Your task to perform on an android device: toggle wifi Image 0: 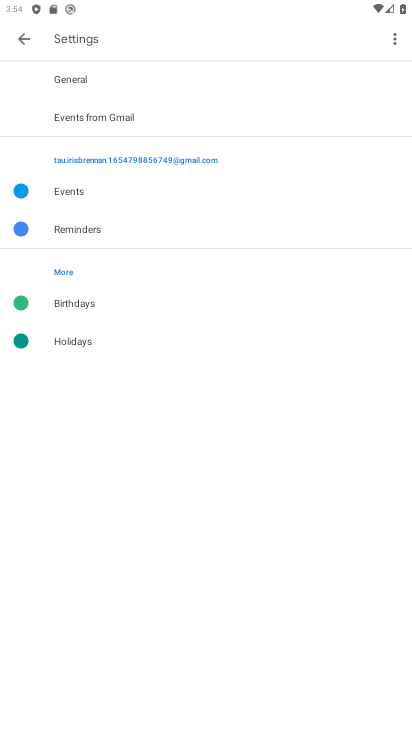
Step 0: press back button
Your task to perform on an android device: toggle wifi Image 1: 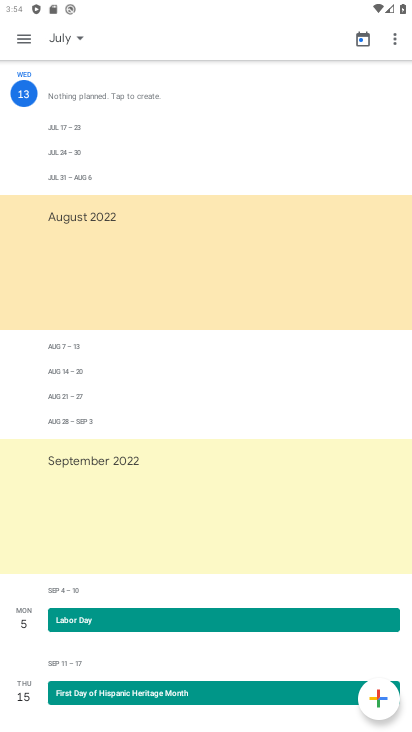
Step 1: press back button
Your task to perform on an android device: toggle wifi Image 2: 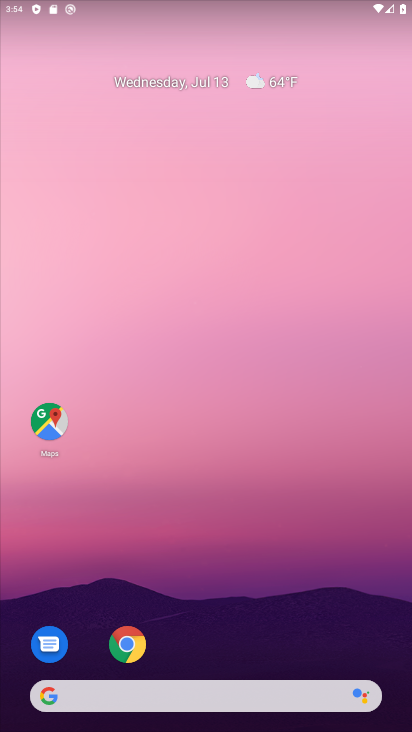
Step 2: drag from (103, 6) to (152, 543)
Your task to perform on an android device: toggle wifi Image 3: 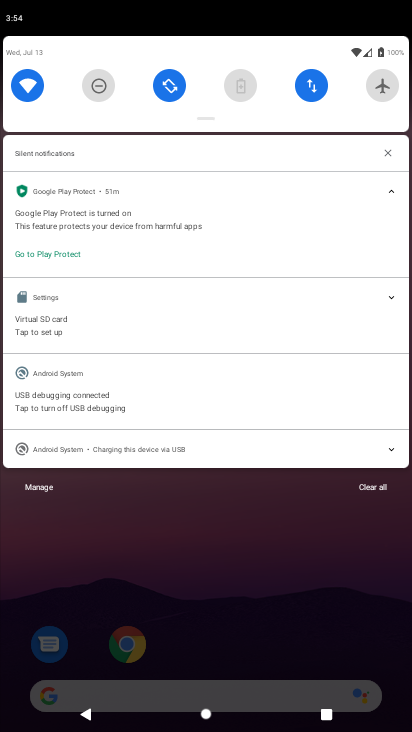
Step 3: click (20, 89)
Your task to perform on an android device: toggle wifi Image 4: 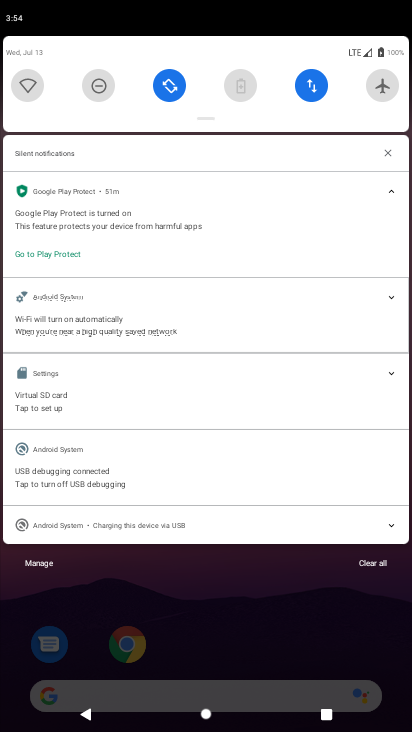
Step 4: task complete